Your task to perform on an android device: change alarm snooze length Image 0: 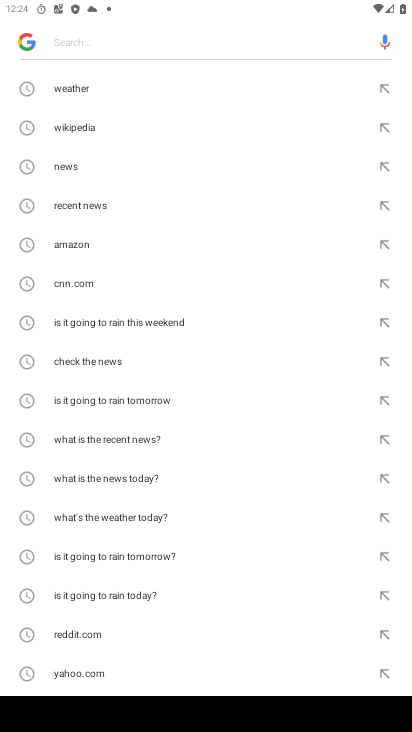
Step 0: press home button
Your task to perform on an android device: change alarm snooze length Image 1: 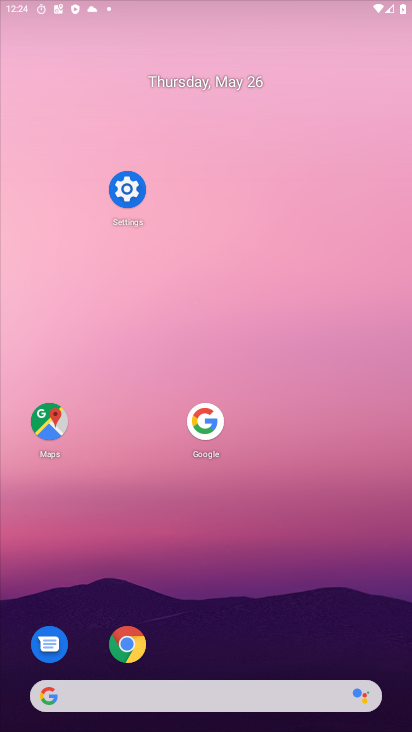
Step 1: drag from (210, 600) to (213, 69)
Your task to perform on an android device: change alarm snooze length Image 2: 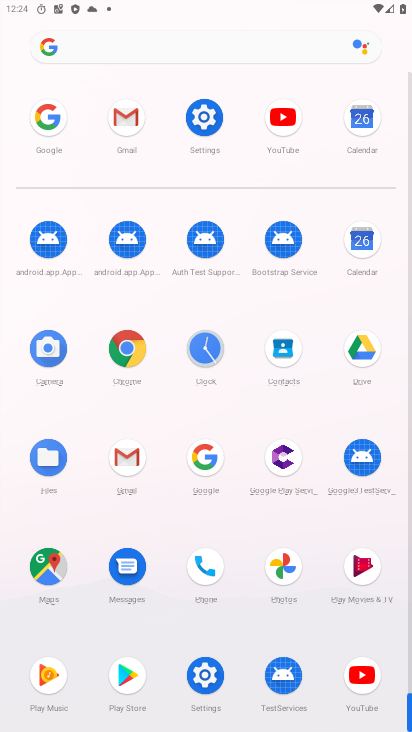
Step 2: click (197, 351)
Your task to perform on an android device: change alarm snooze length Image 3: 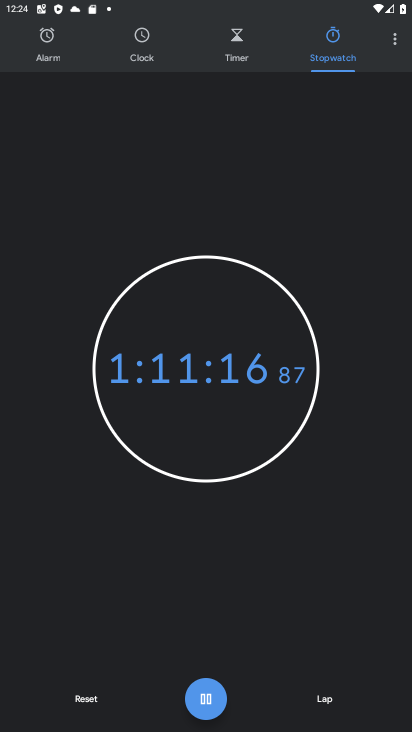
Step 3: click (387, 35)
Your task to perform on an android device: change alarm snooze length Image 4: 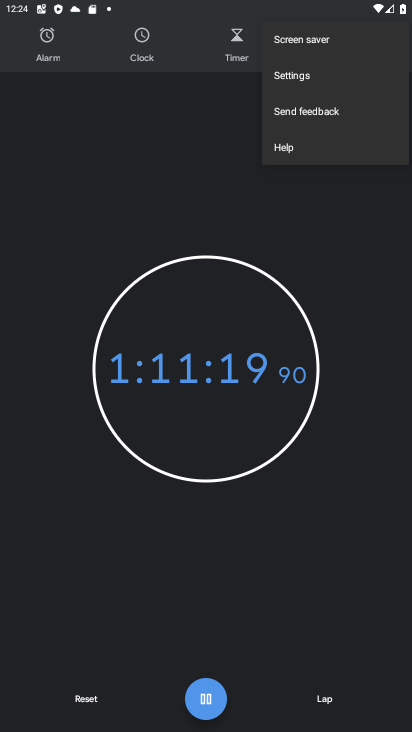
Step 4: click (301, 76)
Your task to perform on an android device: change alarm snooze length Image 5: 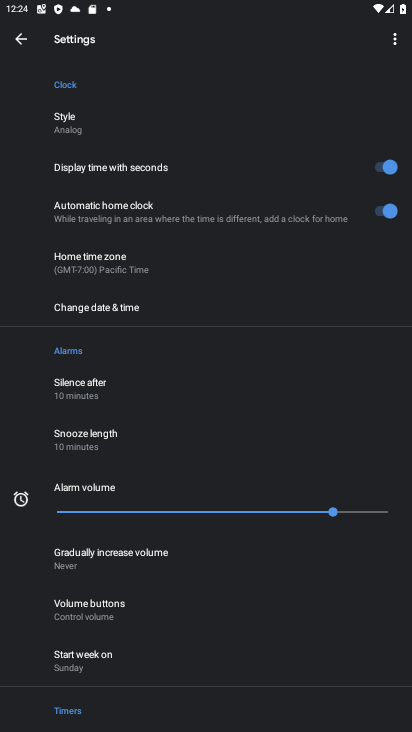
Step 5: click (96, 427)
Your task to perform on an android device: change alarm snooze length Image 6: 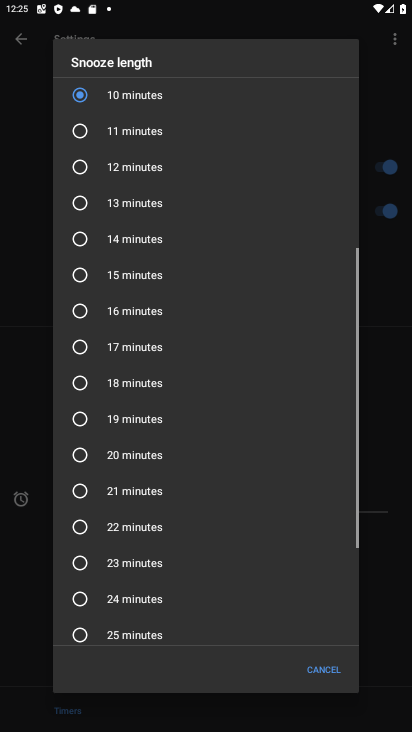
Step 6: click (85, 367)
Your task to perform on an android device: change alarm snooze length Image 7: 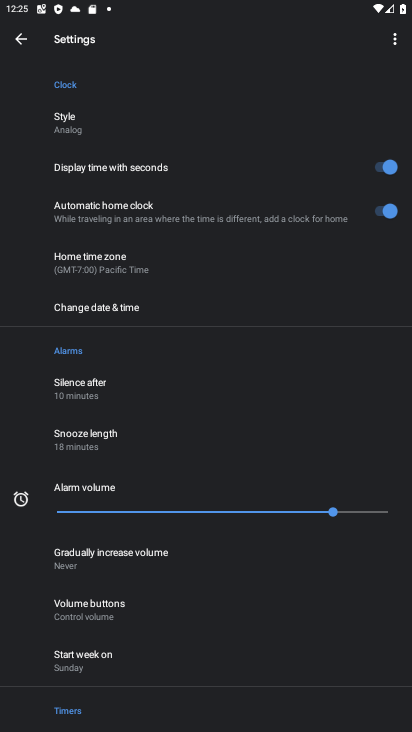
Step 7: task complete